Your task to perform on an android device: Clear all items from cart on target. Search for "razer deathadder" on target, select the first entry, add it to the cart, then select checkout. Image 0: 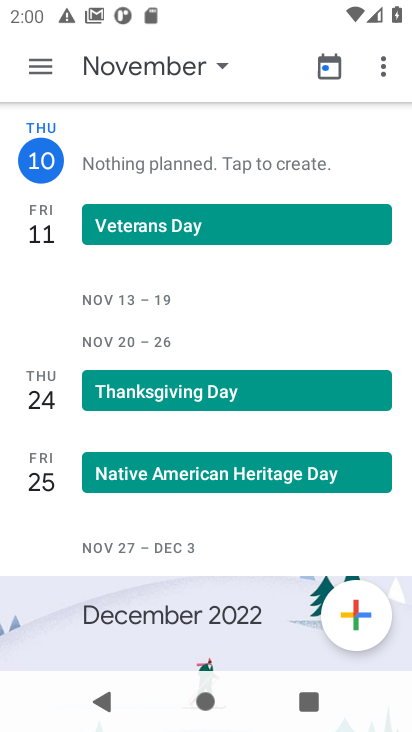
Step 0: press home button
Your task to perform on an android device: Clear all items from cart on target. Search for "razer deathadder" on target, select the first entry, add it to the cart, then select checkout. Image 1: 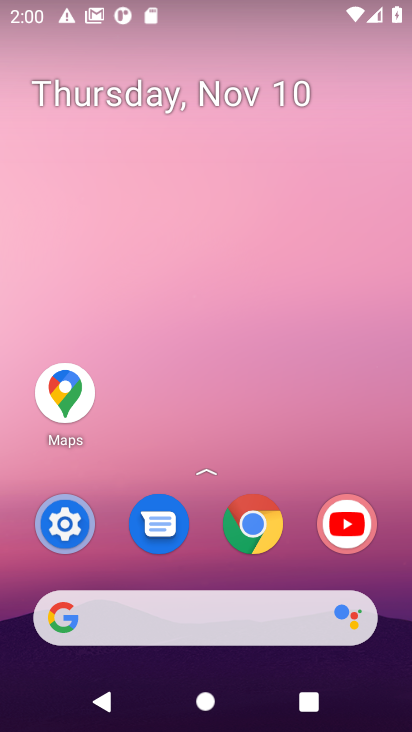
Step 1: click (273, 550)
Your task to perform on an android device: Clear all items from cart on target. Search for "razer deathadder" on target, select the first entry, add it to the cart, then select checkout. Image 2: 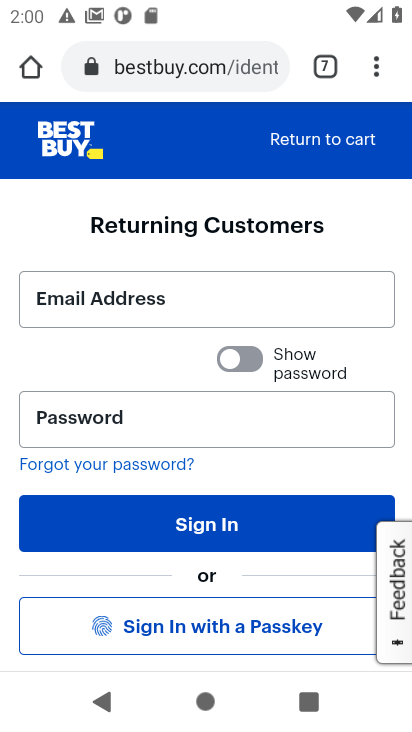
Step 2: click (328, 73)
Your task to perform on an android device: Clear all items from cart on target. Search for "razer deathadder" on target, select the first entry, add it to the cart, then select checkout. Image 3: 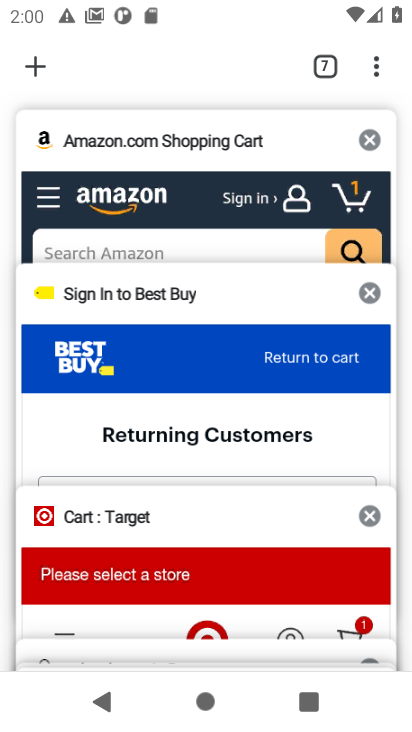
Step 3: click (116, 531)
Your task to perform on an android device: Clear all items from cart on target. Search for "razer deathadder" on target, select the first entry, add it to the cart, then select checkout. Image 4: 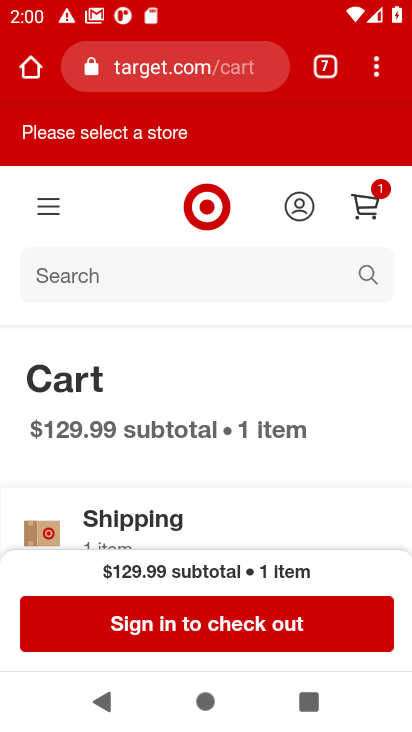
Step 4: drag from (193, 526) to (250, 402)
Your task to perform on an android device: Clear all items from cart on target. Search for "razer deathadder" on target, select the first entry, add it to the cart, then select checkout. Image 5: 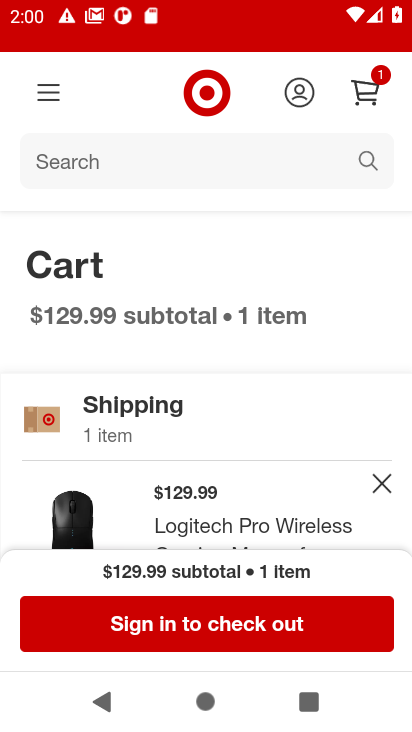
Step 5: click (371, 486)
Your task to perform on an android device: Clear all items from cart on target. Search for "razer deathadder" on target, select the first entry, add it to the cart, then select checkout. Image 6: 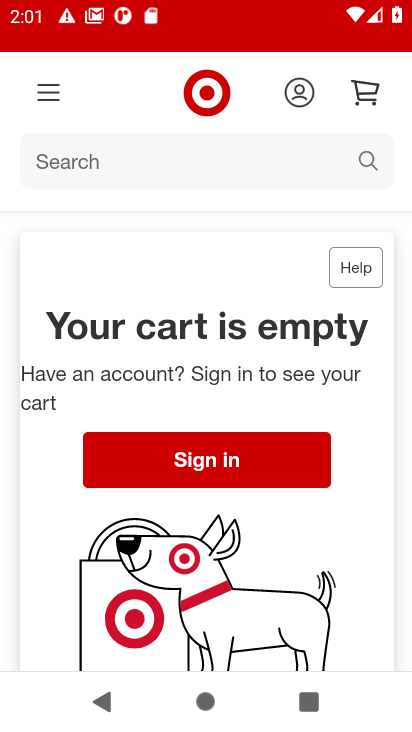
Step 6: click (163, 168)
Your task to perform on an android device: Clear all items from cart on target. Search for "razer deathadder" on target, select the first entry, add it to the cart, then select checkout. Image 7: 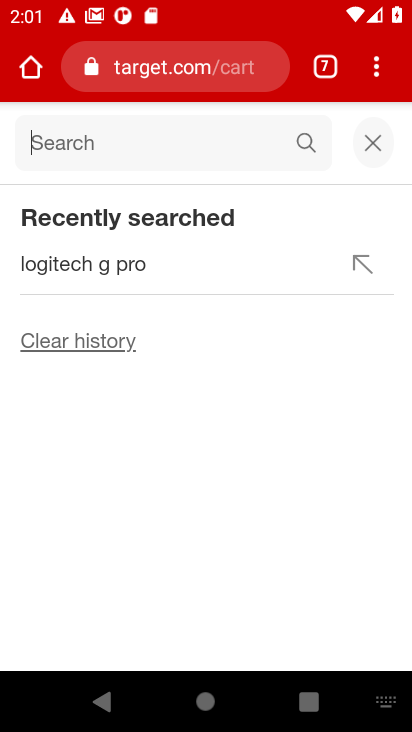
Step 7: type "razer deathadder"
Your task to perform on an android device: Clear all items from cart on target. Search for "razer deathadder" on target, select the first entry, add it to the cart, then select checkout. Image 8: 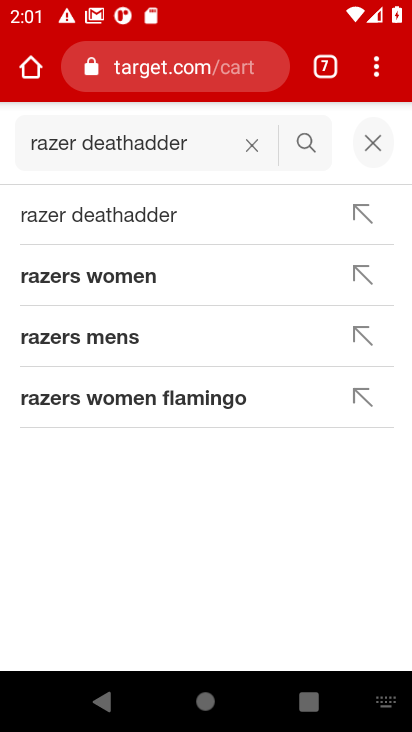
Step 8: click (152, 206)
Your task to perform on an android device: Clear all items from cart on target. Search for "razer deathadder" on target, select the first entry, add it to the cart, then select checkout. Image 9: 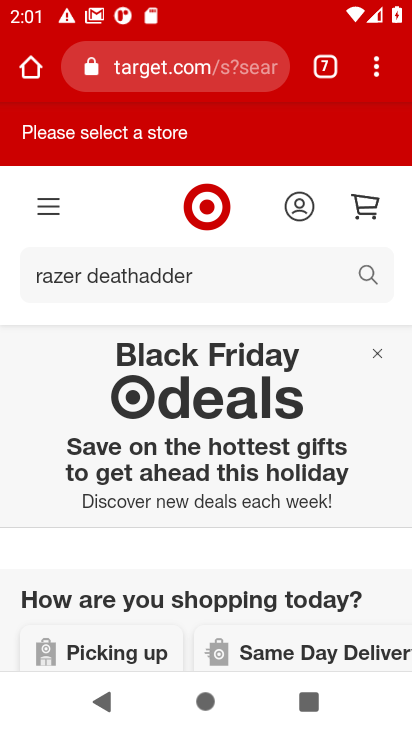
Step 9: drag from (173, 554) to (85, 114)
Your task to perform on an android device: Clear all items from cart on target. Search for "razer deathadder" on target, select the first entry, add it to the cart, then select checkout. Image 10: 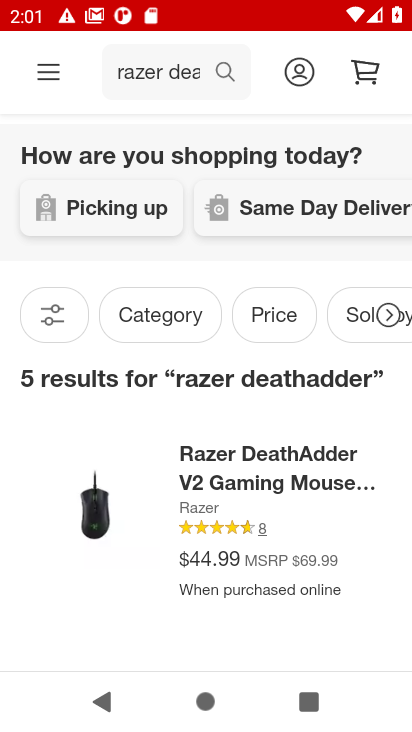
Step 10: click (245, 456)
Your task to perform on an android device: Clear all items from cart on target. Search for "razer deathadder" on target, select the first entry, add it to the cart, then select checkout. Image 11: 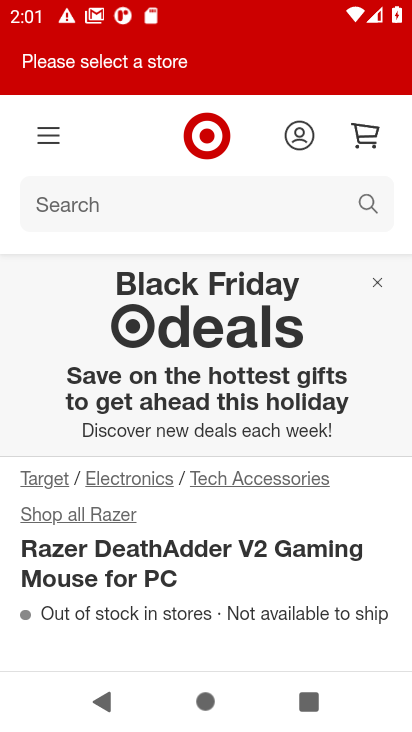
Step 11: drag from (237, 563) to (226, 212)
Your task to perform on an android device: Clear all items from cart on target. Search for "razer deathadder" on target, select the first entry, add it to the cart, then select checkout. Image 12: 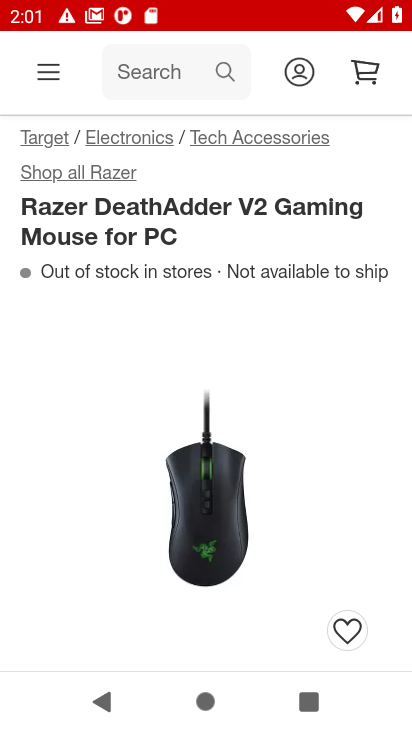
Step 12: drag from (254, 462) to (237, 183)
Your task to perform on an android device: Clear all items from cart on target. Search for "razer deathadder" on target, select the first entry, add it to the cart, then select checkout. Image 13: 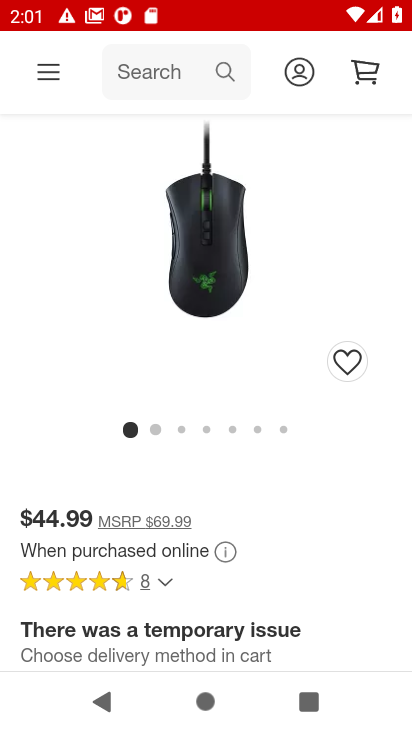
Step 13: drag from (246, 637) to (331, 137)
Your task to perform on an android device: Clear all items from cart on target. Search for "razer deathadder" on target, select the first entry, add it to the cart, then select checkout. Image 14: 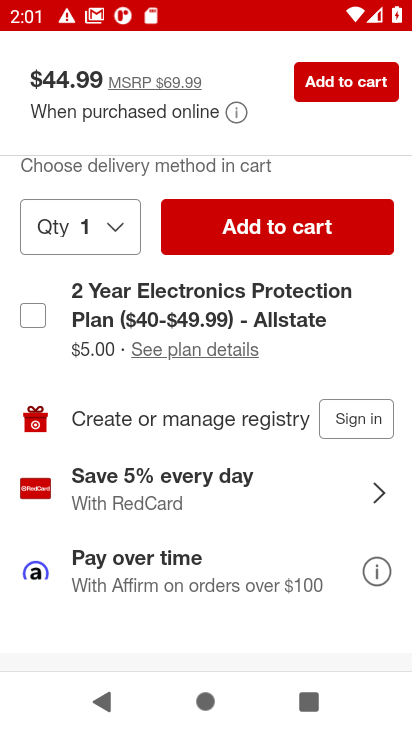
Step 14: click (309, 231)
Your task to perform on an android device: Clear all items from cart on target. Search for "razer deathadder" on target, select the first entry, add it to the cart, then select checkout. Image 15: 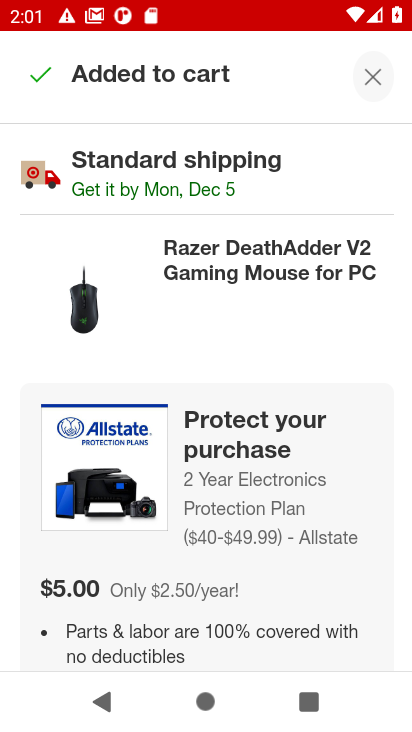
Step 15: task complete